Your task to perform on an android device: allow cookies in the chrome app Image 0: 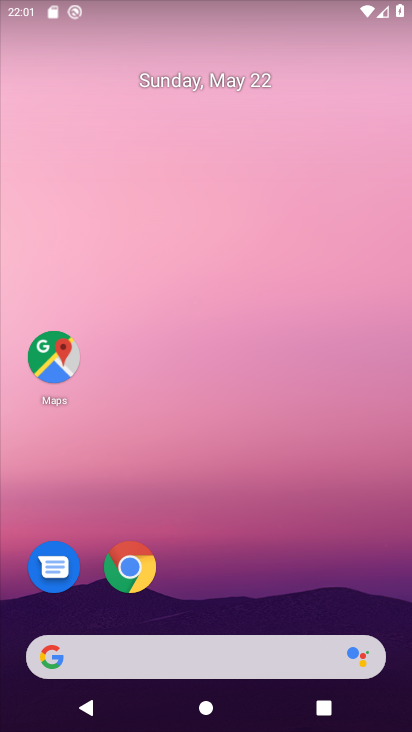
Step 0: press home button
Your task to perform on an android device: allow cookies in the chrome app Image 1: 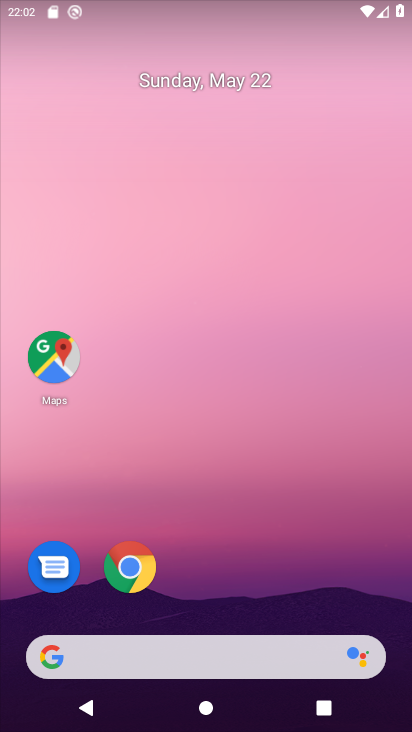
Step 1: click (128, 563)
Your task to perform on an android device: allow cookies in the chrome app Image 2: 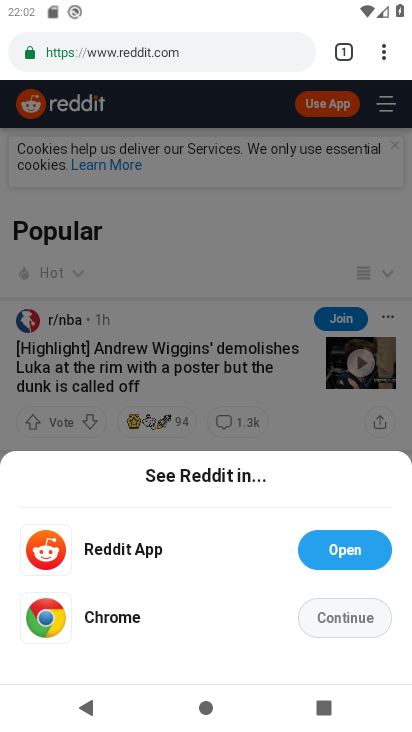
Step 2: click (347, 613)
Your task to perform on an android device: allow cookies in the chrome app Image 3: 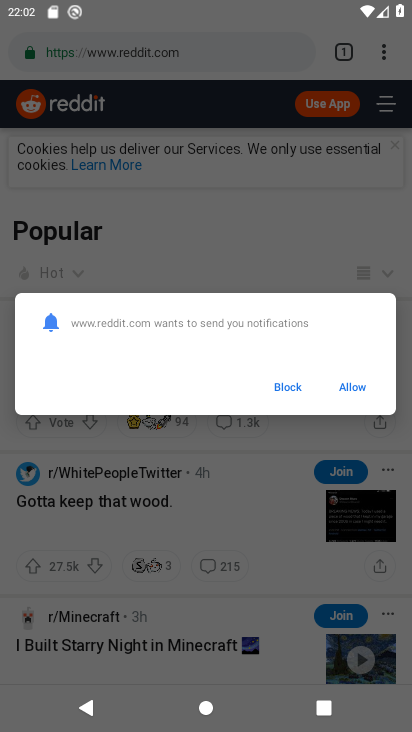
Step 3: click (296, 384)
Your task to perform on an android device: allow cookies in the chrome app Image 4: 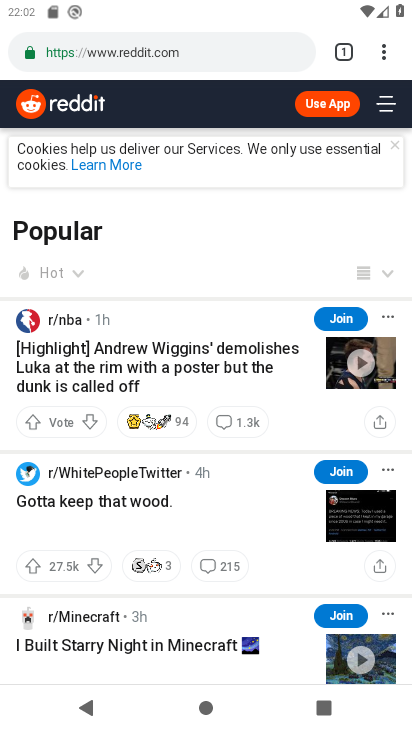
Step 4: click (383, 58)
Your task to perform on an android device: allow cookies in the chrome app Image 5: 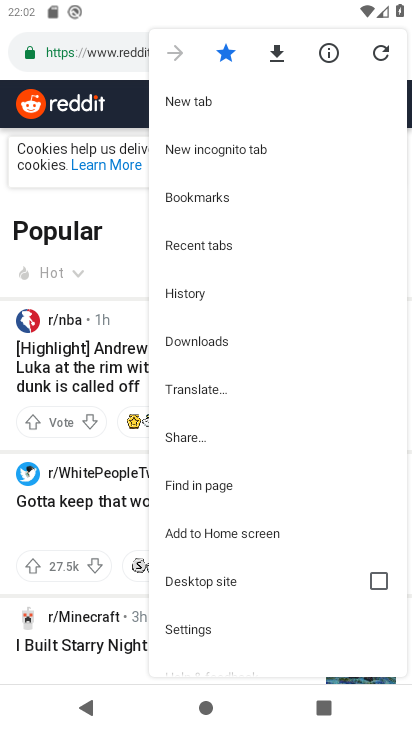
Step 5: click (219, 625)
Your task to perform on an android device: allow cookies in the chrome app Image 6: 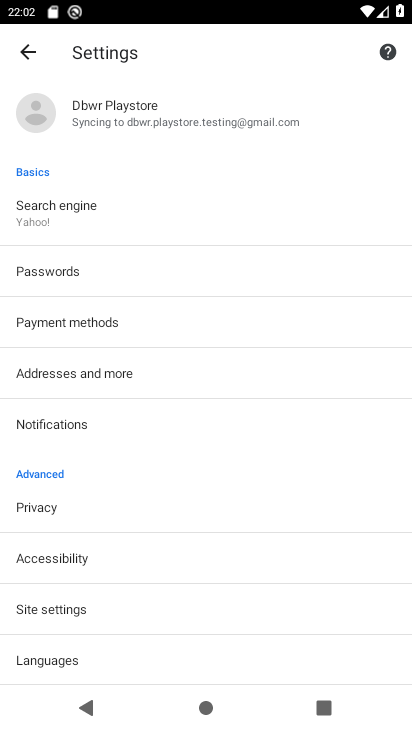
Step 6: click (103, 596)
Your task to perform on an android device: allow cookies in the chrome app Image 7: 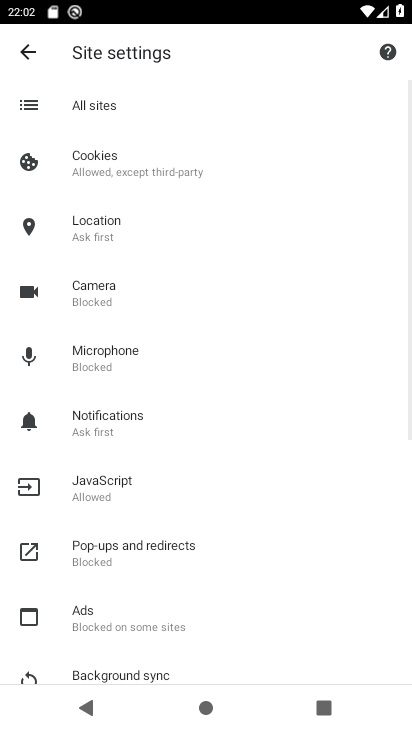
Step 7: click (109, 146)
Your task to perform on an android device: allow cookies in the chrome app Image 8: 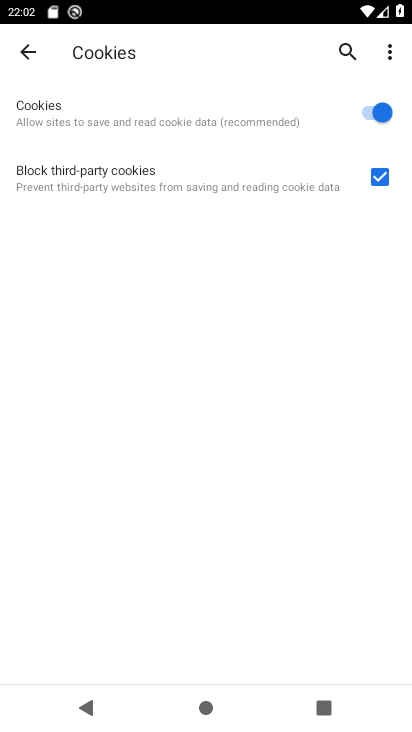
Step 8: task complete